Your task to perform on an android device: open app "Skype" Image 0: 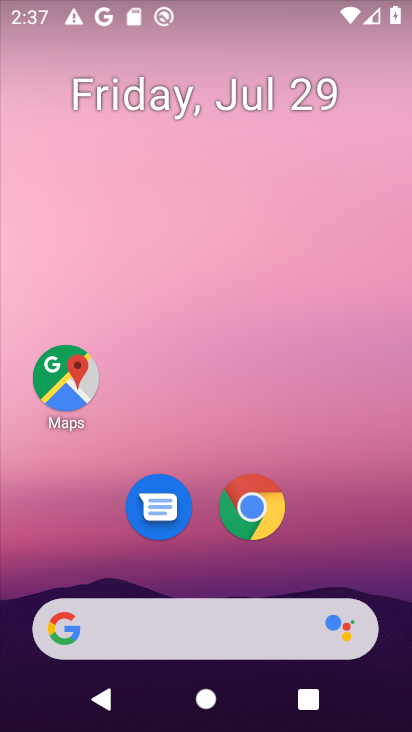
Step 0: task complete